Your task to perform on an android device: turn off notifications in google photos Image 0: 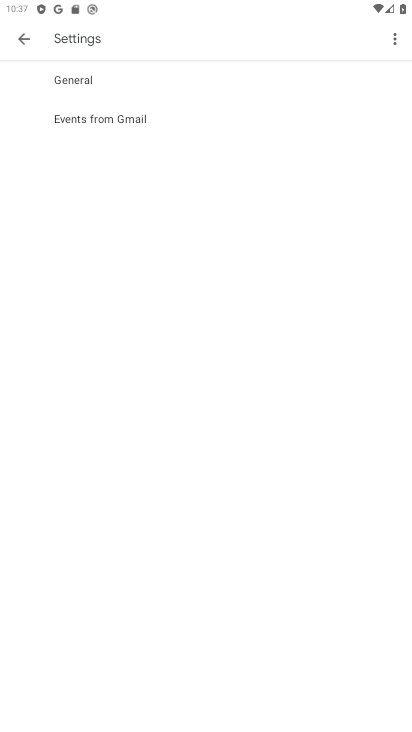
Step 0: press home button
Your task to perform on an android device: turn off notifications in google photos Image 1: 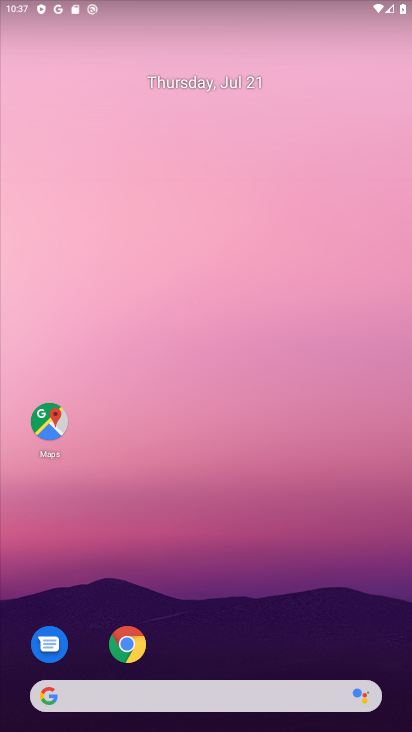
Step 1: drag from (228, 656) to (109, 111)
Your task to perform on an android device: turn off notifications in google photos Image 2: 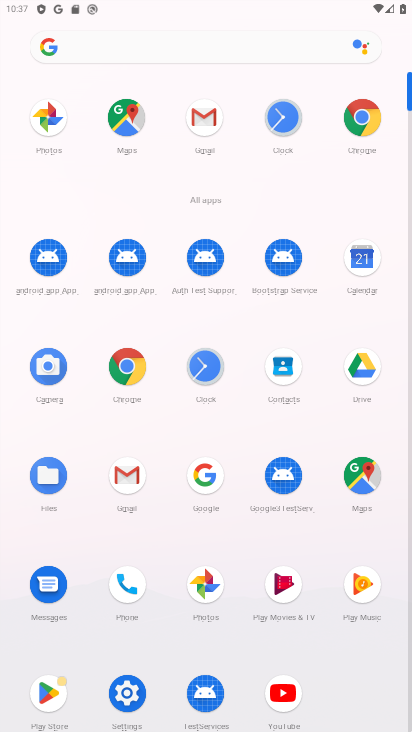
Step 2: click (47, 119)
Your task to perform on an android device: turn off notifications in google photos Image 3: 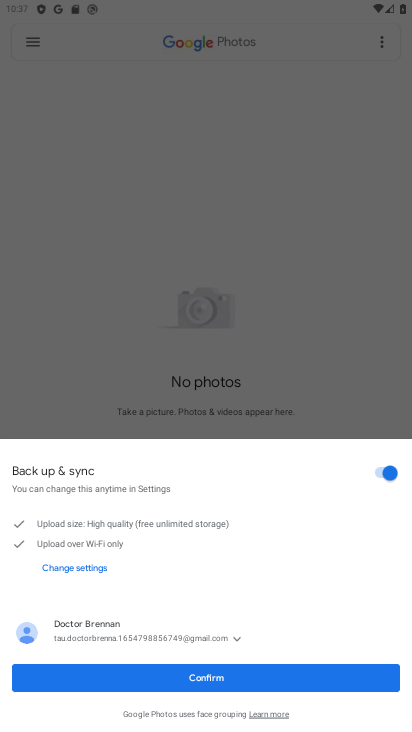
Step 3: click (248, 678)
Your task to perform on an android device: turn off notifications in google photos Image 4: 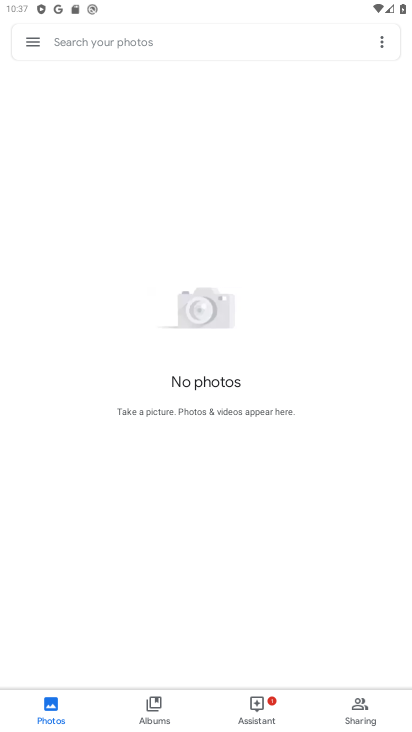
Step 4: click (33, 38)
Your task to perform on an android device: turn off notifications in google photos Image 5: 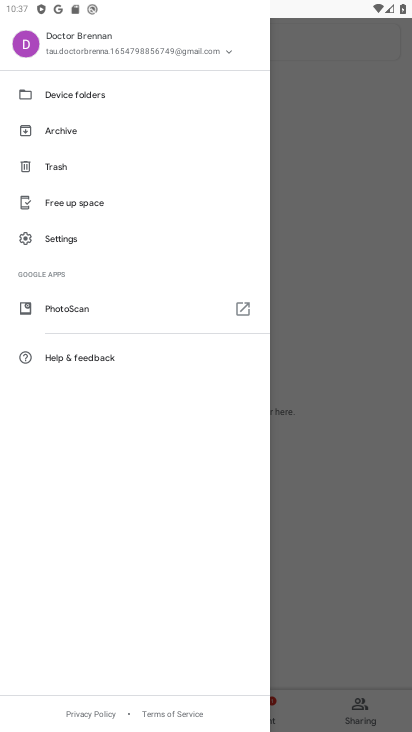
Step 5: click (66, 244)
Your task to perform on an android device: turn off notifications in google photos Image 6: 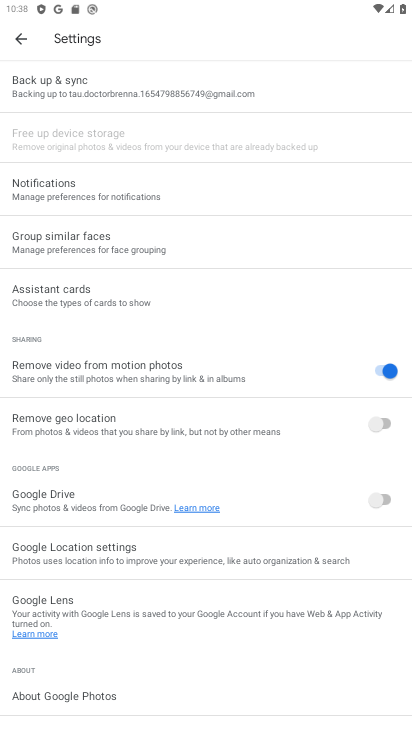
Step 6: click (114, 183)
Your task to perform on an android device: turn off notifications in google photos Image 7: 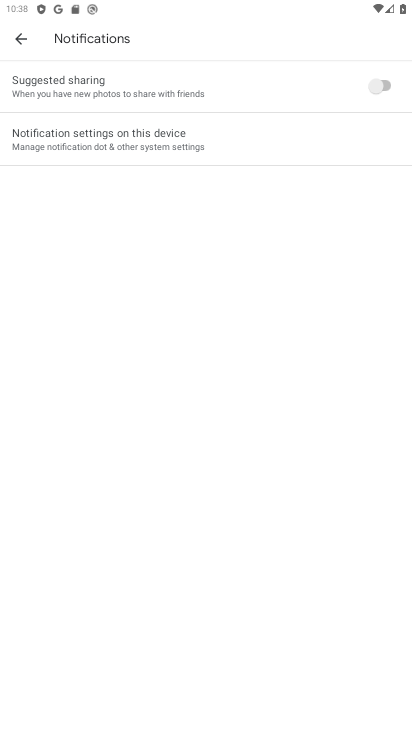
Step 7: click (342, 133)
Your task to perform on an android device: turn off notifications in google photos Image 8: 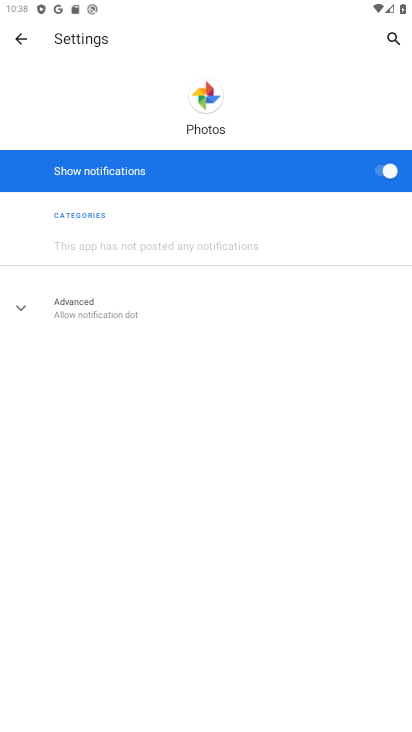
Step 8: click (381, 174)
Your task to perform on an android device: turn off notifications in google photos Image 9: 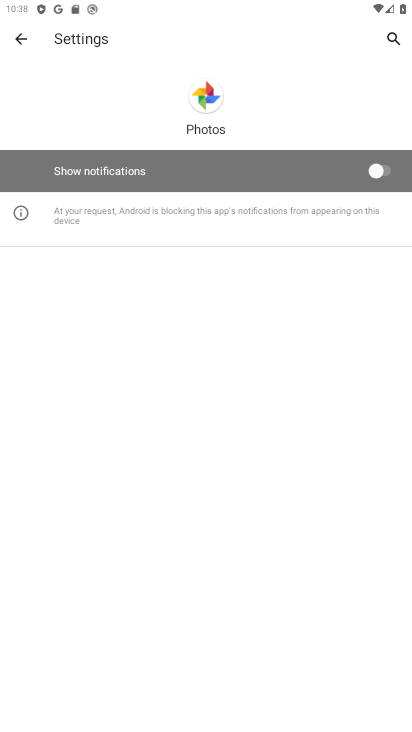
Step 9: task complete